Your task to perform on an android device: When is my next appointment? Image 0: 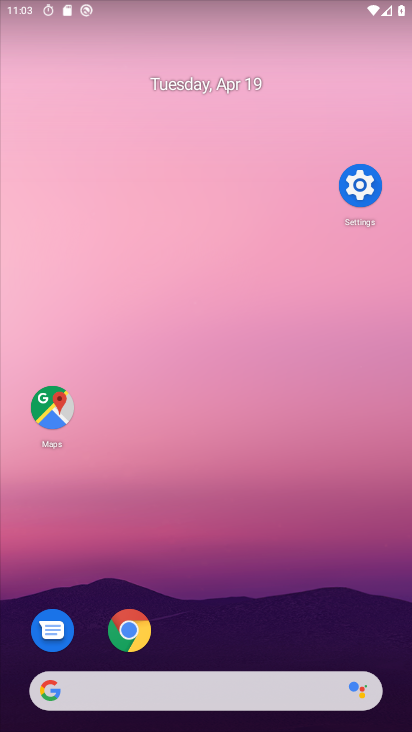
Step 0: drag from (302, 609) to (407, 43)
Your task to perform on an android device: When is my next appointment? Image 1: 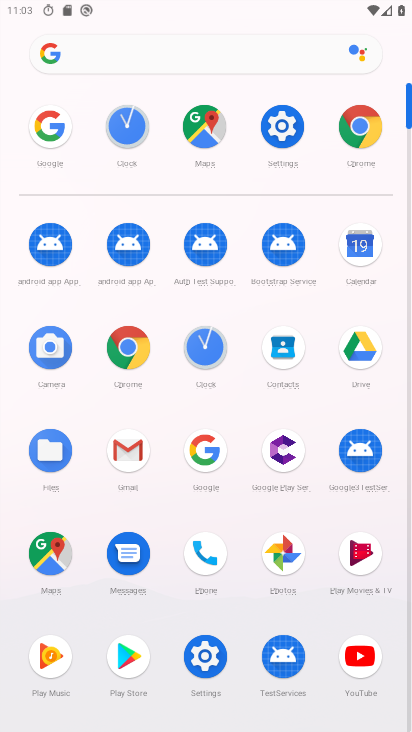
Step 1: click (369, 244)
Your task to perform on an android device: When is my next appointment? Image 2: 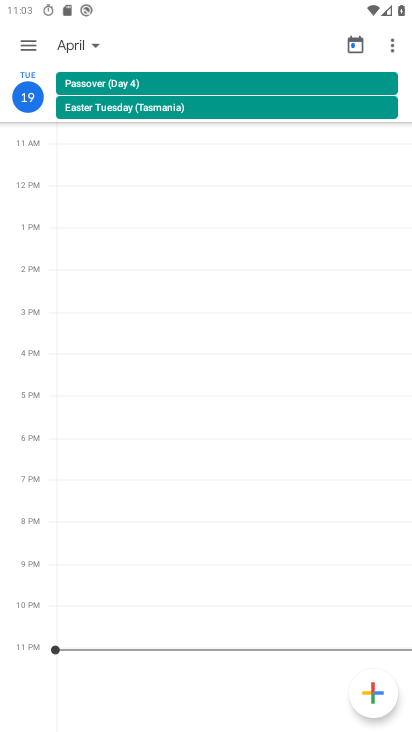
Step 2: click (84, 43)
Your task to perform on an android device: When is my next appointment? Image 3: 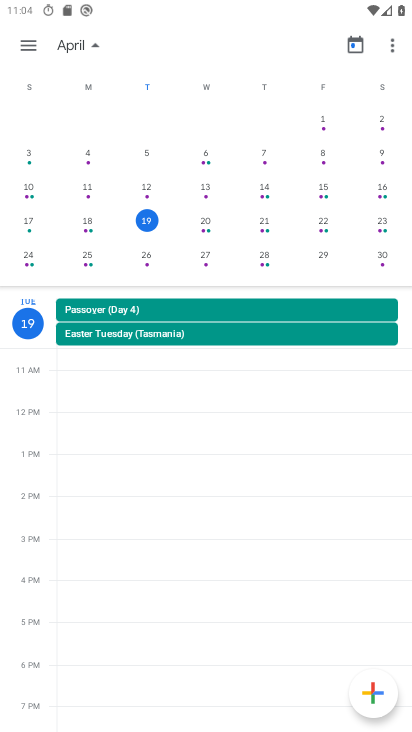
Step 3: task complete